Your task to perform on an android device: Go to notification settings Image 0: 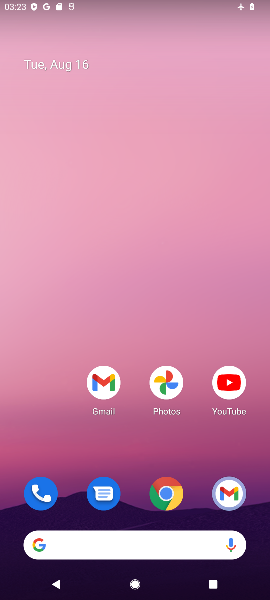
Step 0: drag from (51, 434) to (64, 70)
Your task to perform on an android device: Go to notification settings Image 1: 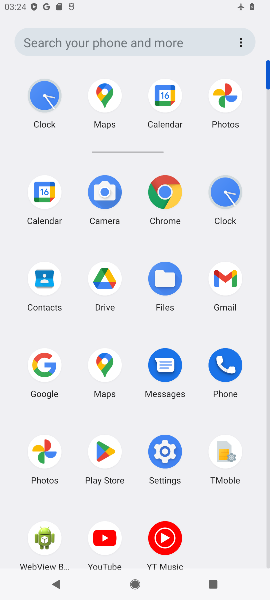
Step 1: click (163, 450)
Your task to perform on an android device: Go to notification settings Image 2: 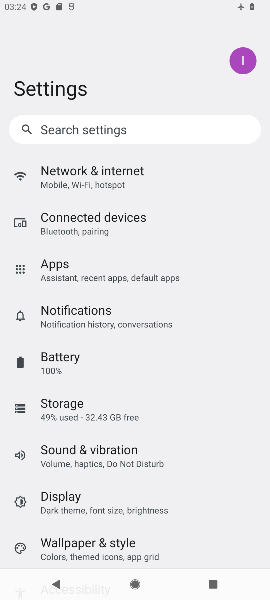
Step 2: drag from (204, 487) to (229, 361)
Your task to perform on an android device: Go to notification settings Image 3: 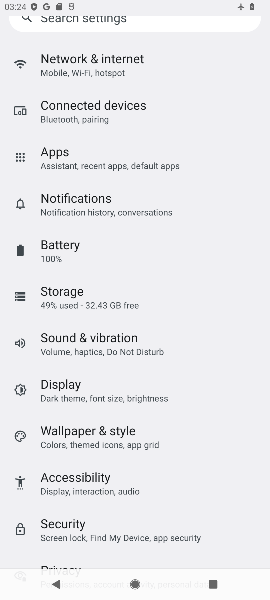
Step 3: drag from (221, 459) to (229, 367)
Your task to perform on an android device: Go to notification settings Image 4: 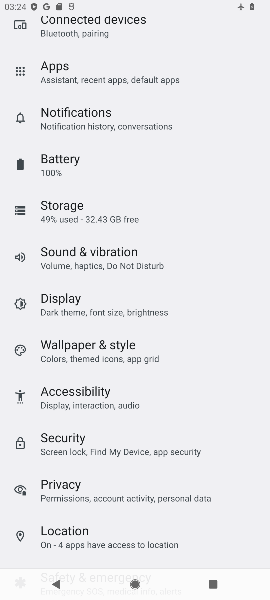
Step 4: drag from (238, 496) to (249, 389)
Your task to perform on an android device: Go to notification settings Image 5: 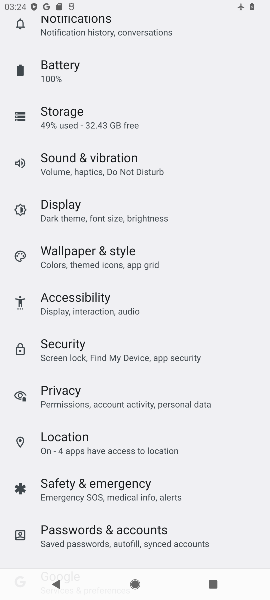
Step 5: drag from (232, 502) to (233, 363)
Your task to perform on an android device: Go to notification settings Image 6: 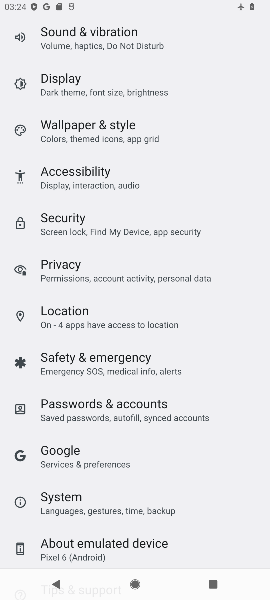
Step 6: drag from (230, 504) to (235, 375)
Your task to perform on an android device: Go to notification settings Image 7: 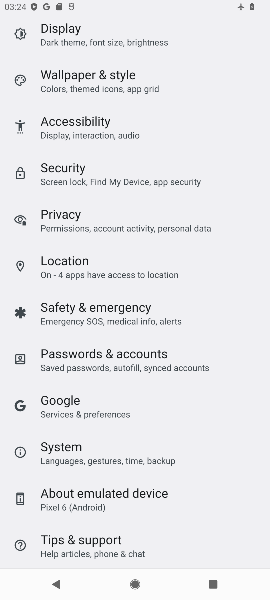
Step 7: drag from (244, 247) to (241, 378)
Your task to perform on an android device: Go to notification settings Image 8: 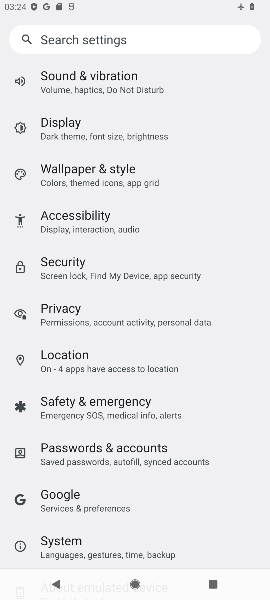
Step 8: drag from (236, 211) to (249, 348)
Your task to perform on an android device: Go to notification settings Image 9: 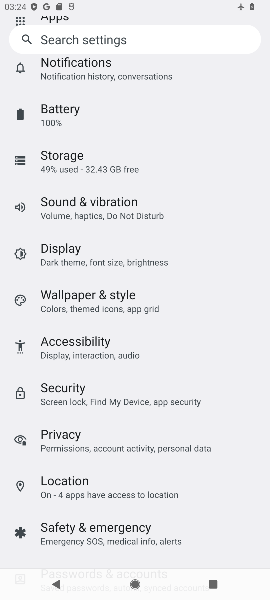
Step 9: drag from (248, 197) to (228, 392)
Your task to perform on an android device: Go to notification settings Image 10: 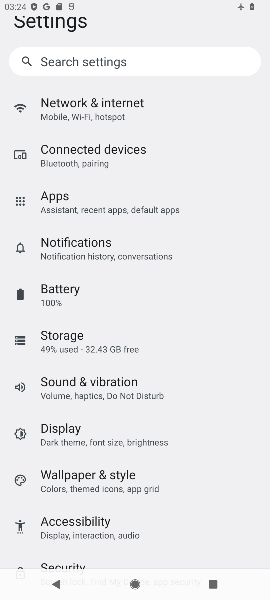
Step 10: drag from (225, 158) to (232, 327)
Your task to perform on an android device: Go to notification settings Image 11: 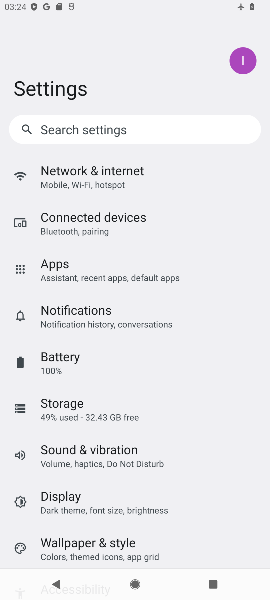
Step 11: click (154, 307)
Your task to perform on an android device: Go to notification settings Image 12: 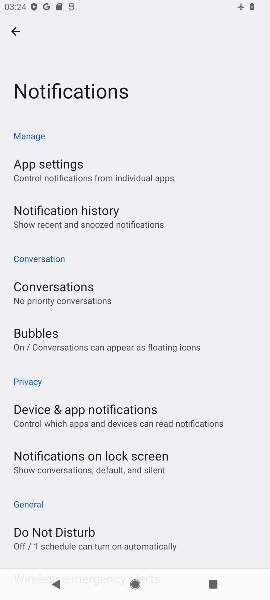
Step 12: task complete